Your task to perform on an android device: Open settings on Google Maps Image 0: 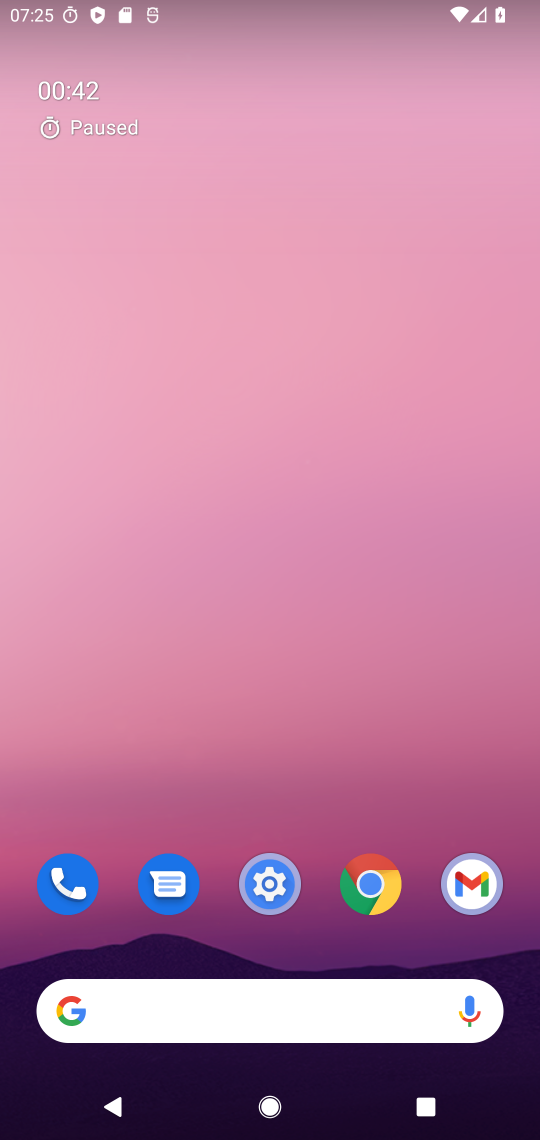
Step 0: press home button
Your task to perform on an android device: Open settings on Google Maps Image 1: 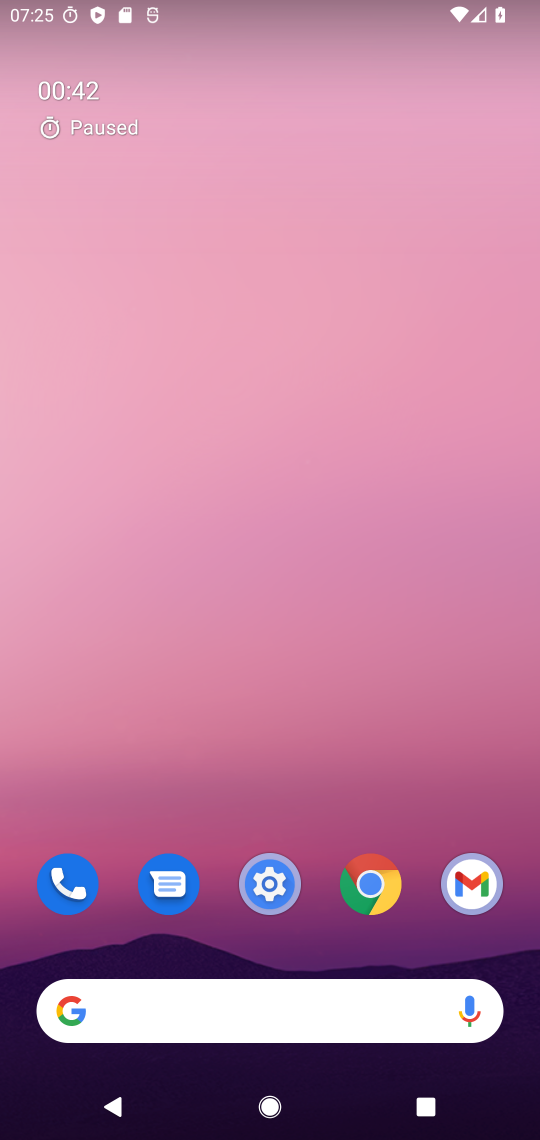
Step 1: drag from (354, 820) to (337, 45)
Your task to perform on an android device: Open settings on Google Maps Image 2: 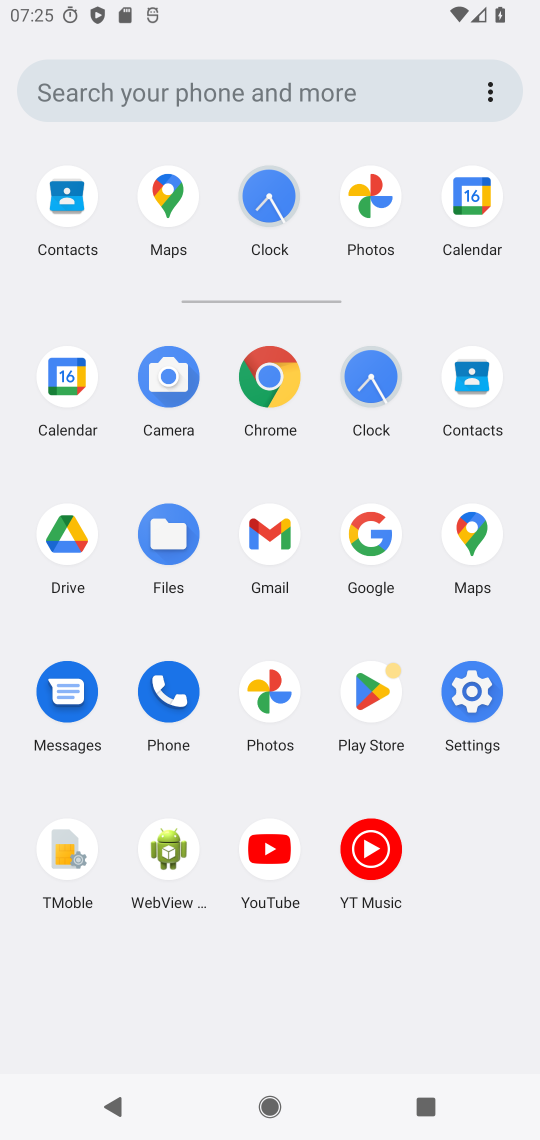
Step 2: click (478, 540)
Your task to perform on an android device: Open settings on Google Maps Image 3: 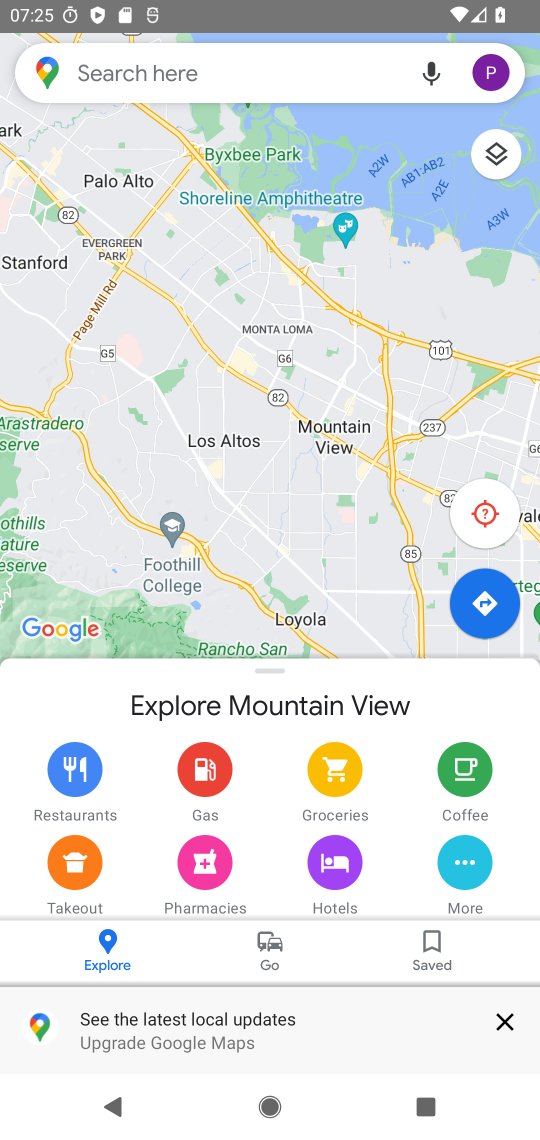
Step 3: task complete